Your task to perform on an android device: Open Chrome and go to the settings page Image 0: 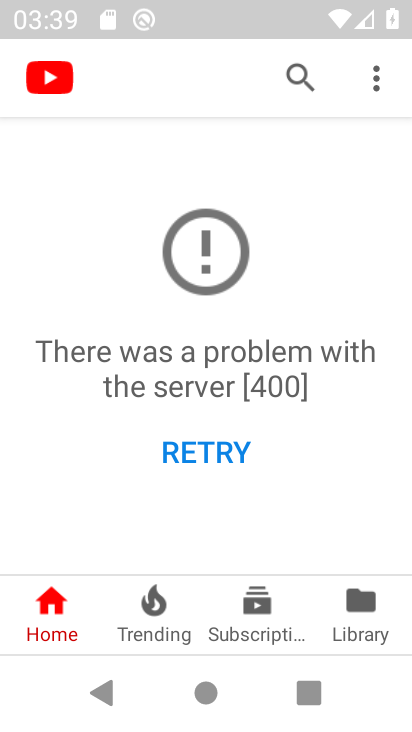
Step 0: press home button
Your task to perform on an android device: Open Chrome and go to the settings page Image 1: 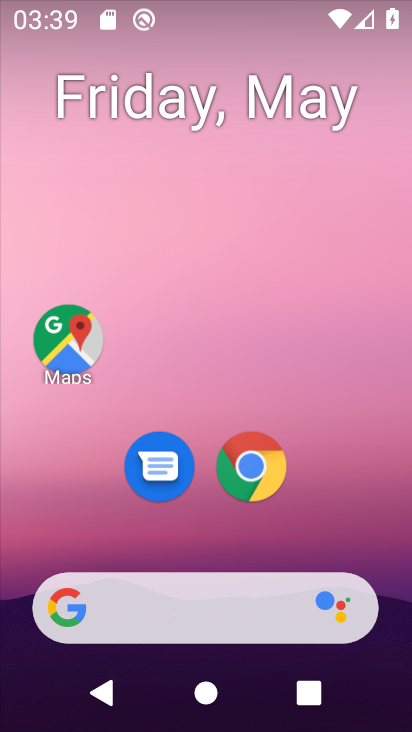
Step 1: drag from (386, 562) to (388, 265)
Your task to perform on an android device: Open Chrome and go to the settings page Image 2: 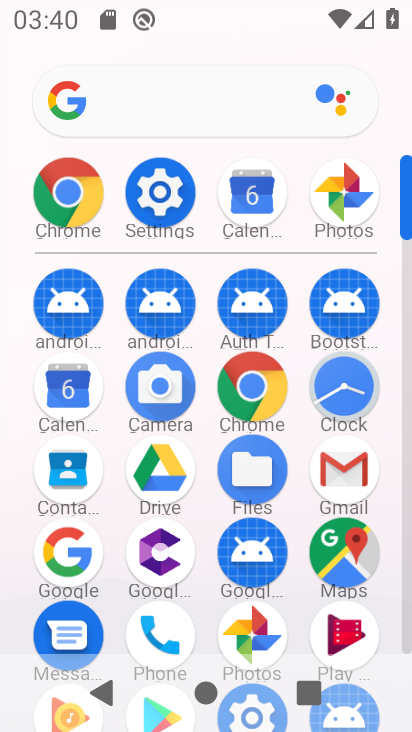
Step 2: click (237, 390)
Your task to perform on an android device: Open Chrome and go to the settings page Image 3: 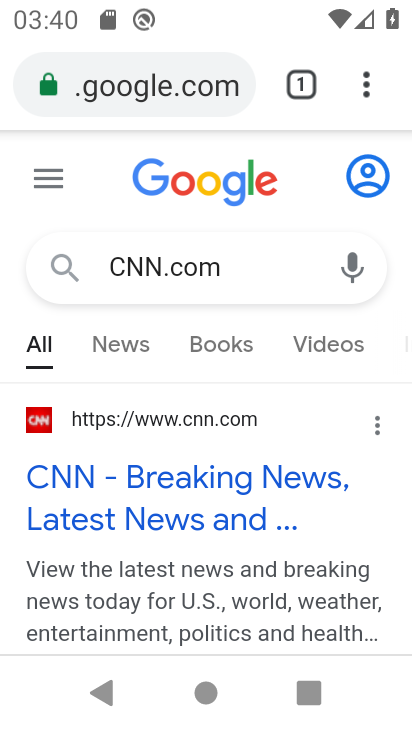
Step 3: click (365, 81)
Your task to perform on an android device: Open Chrome and go to the settings page Image 4: 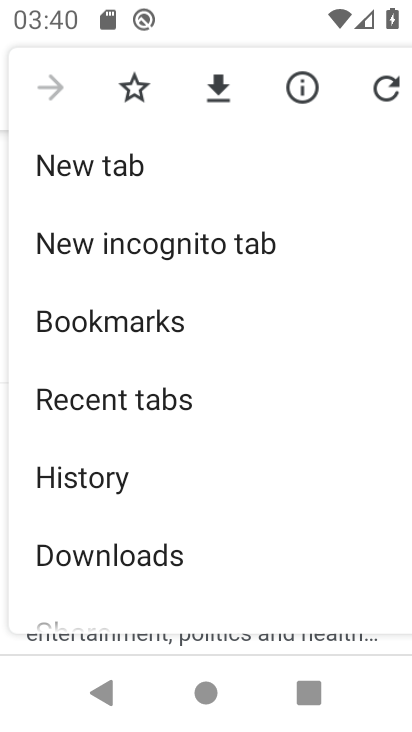
Step 4: drag from (325, 570) to (316, 325)
Your task to perform on an android device: Open Chrome and go to the settings page Image 5: 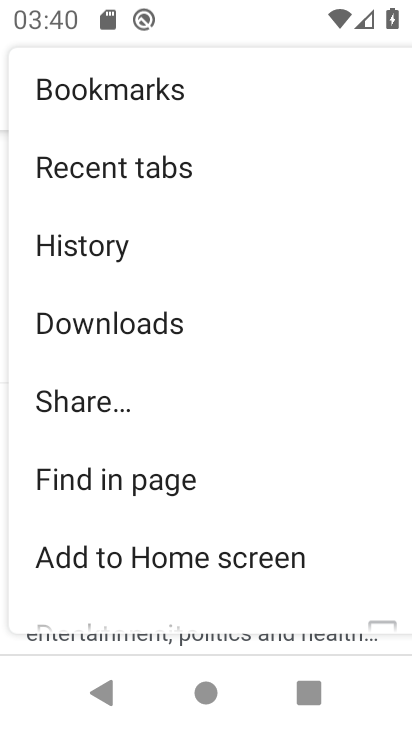
Step 5: drag from (296, 549) to (296, 347)
Your task to perform on an android device: Open Chrome and go to the settings page Image 6: 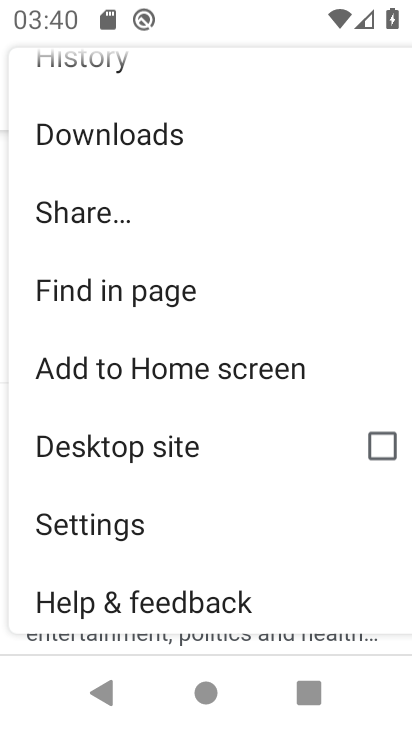
Step 6: click (126, 526)
Your task to perform on an android device: Open Chrome and go to the settings page Image 7: 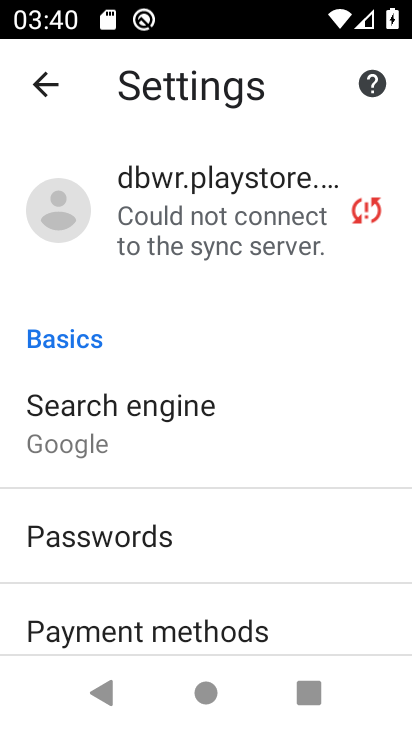
Step 7: task complete